Your task to perform on an android device: Search for sushi restaurants on Maps Image 0: 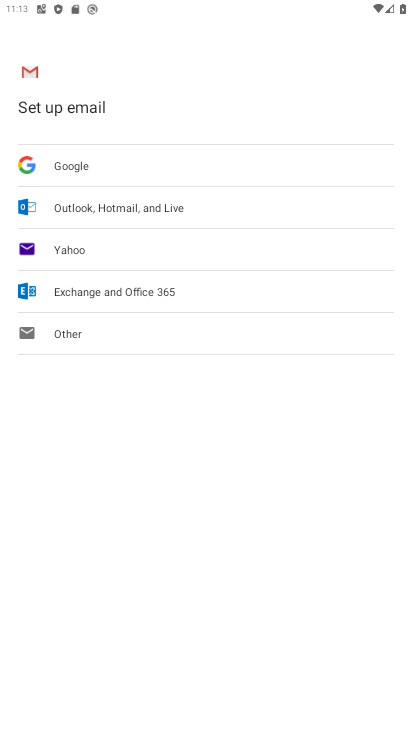
Step 0: press home button
Your task to perform on an android device: Search for sushi restaurants on Maps Image 1: 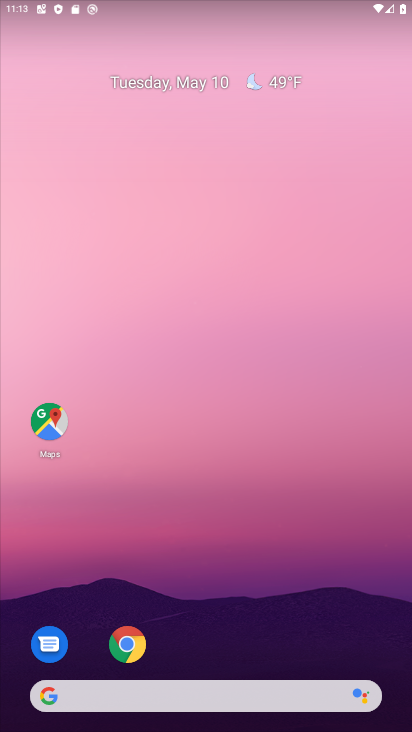
Step 1: click (64, 432)
Your task to perform on an android device: Search for sushi restaurants on Maps Image 2: 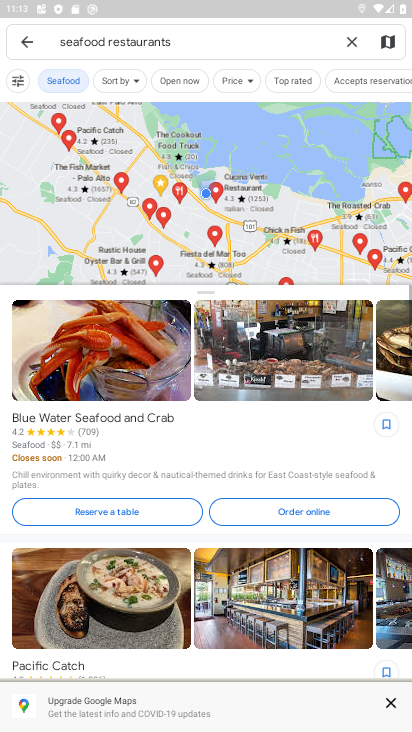
Step 2: click (342, 42)
Your task to perform on an android device: Search for sushi restaurants on Maps Image 3: 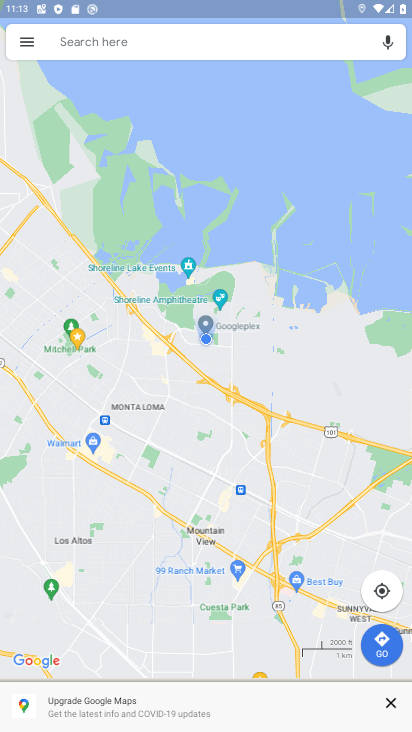
Step 3: click (210, 45)
Your task to perform on an android device: Search for sushi restaurants on Maps Image 4: 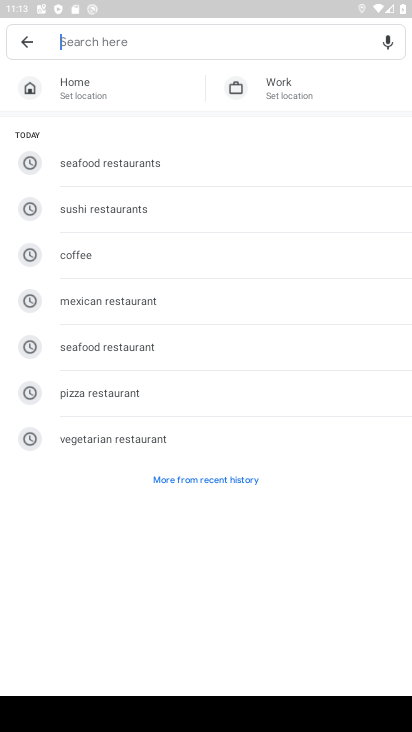
Step 4: type "sushi restaurants"
Your task to perform on an android device: Search for sushi restaurants on Maps Image 5: 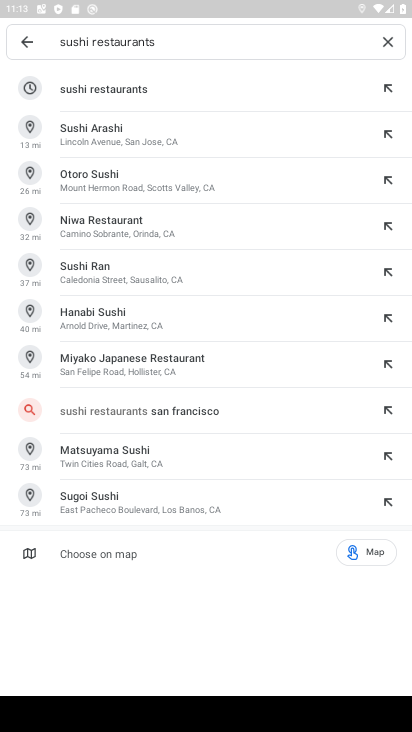
Step 5: click (175, 95)
Your task to perform on an android device: Search for sushi restaurants on Maps Image 6: 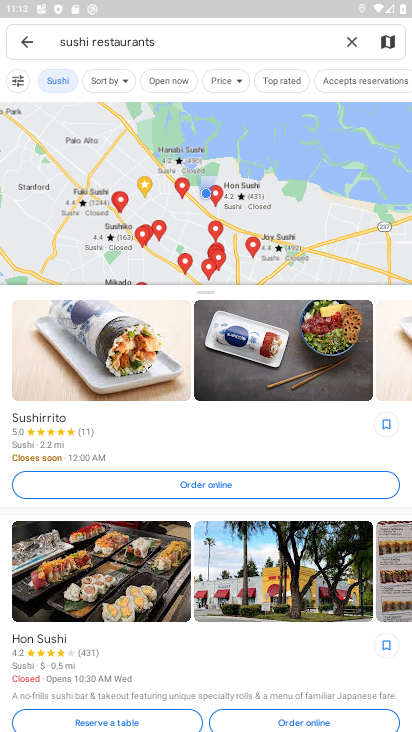
Step 6: task complete